Your task to perform on an android device: see creations saved in the google photos Image 0: 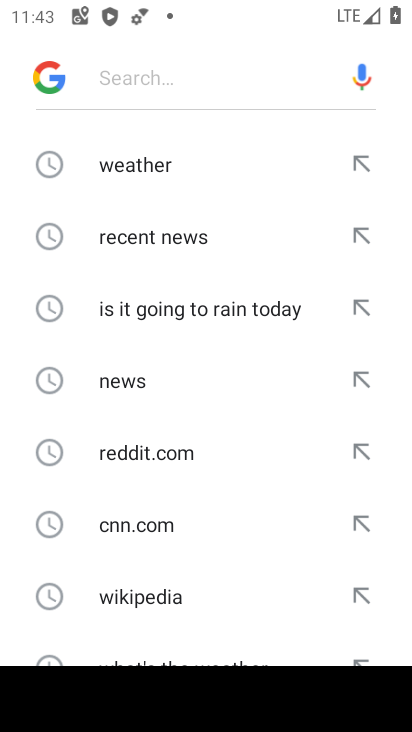
Step 0: press back button
Your task to perform on an android device: see creations saved in the google photos Image 1: 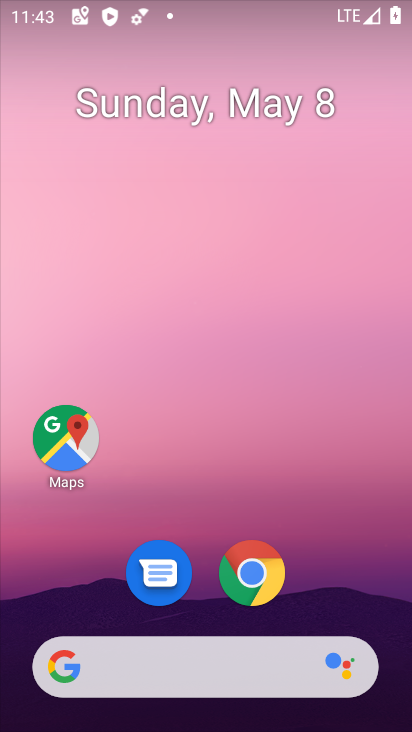
Step 1: drag from (315, 375) to (282, 36)
Your task to perform on an android device: see creations saved in the google photos Image 2: 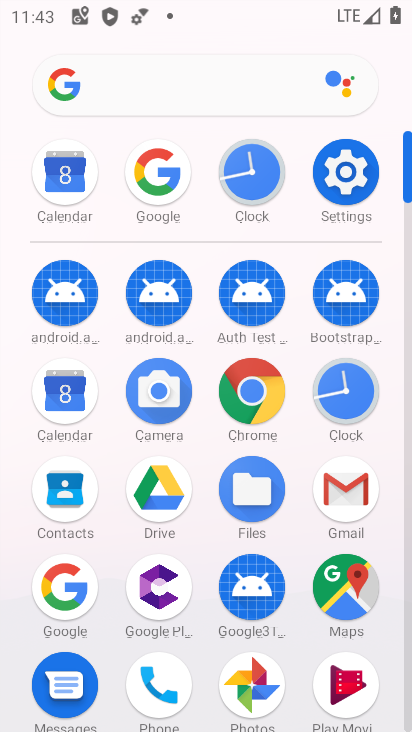
Step 2: drag from (10, 570) to (12, 239)
Your task to perform on an android device: see creations saved in the google photos Image 3: 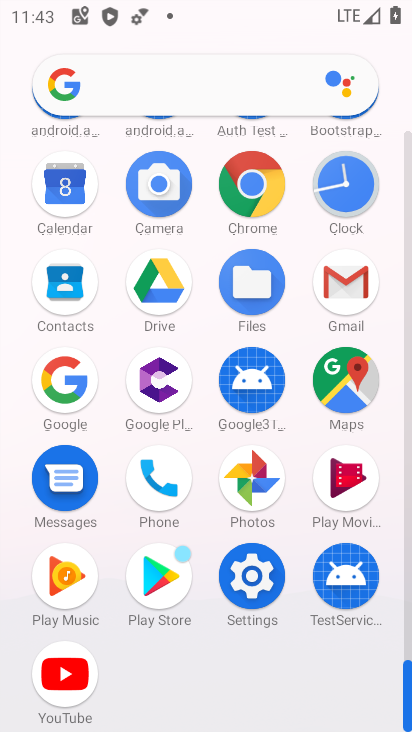
Step 3: click (251, 473)
Your task to perform on an android device: see creations saved in the google photos Image 4: 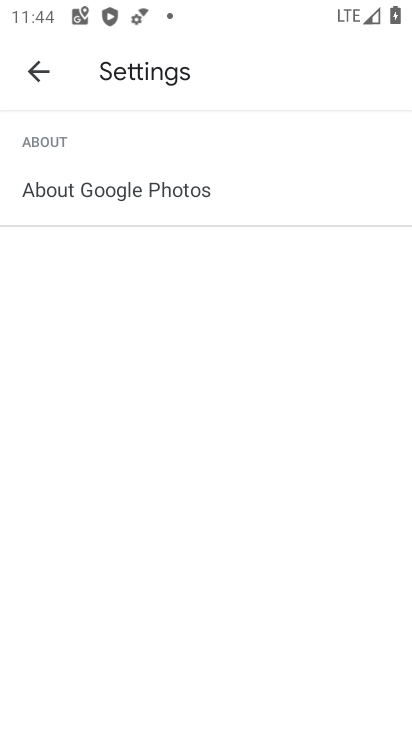
Step 4: click (35, 77)
Your task to perform on an android device: see creations saved in the google photos Image 5: 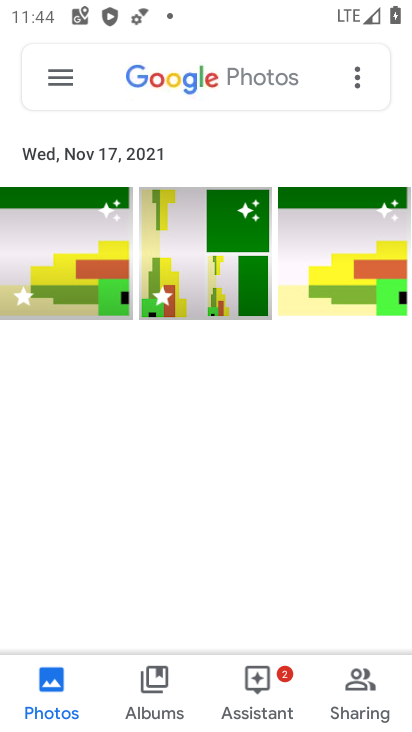
Step 5: task complete